Your task to perform on an android device: Go to wifi settings Image 0: 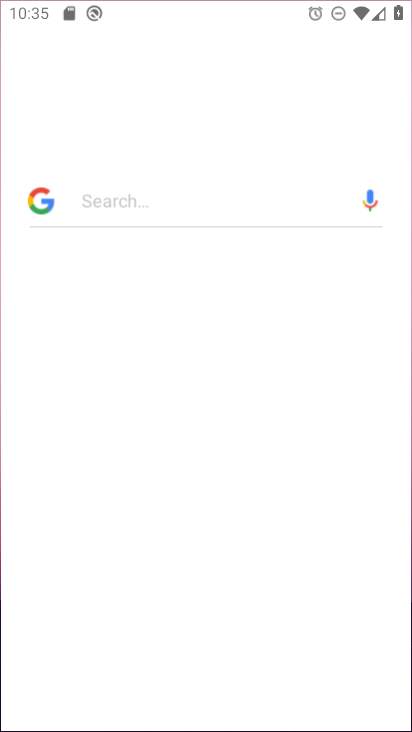
Step 0: drag from (360, 622) to (287, 109)
Your task to perform on an android device: Go to wifi settings Image 1: 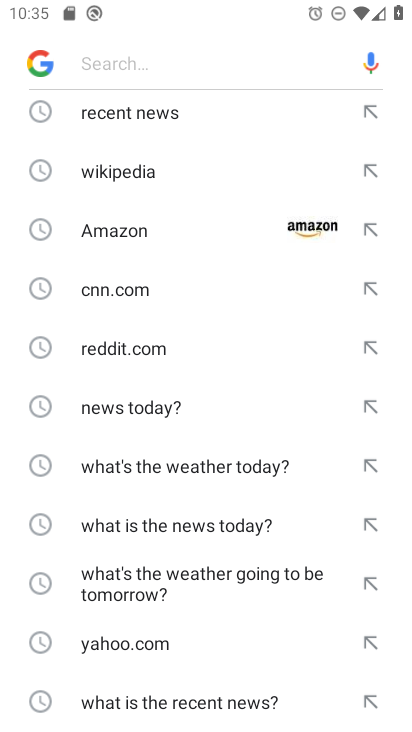
Step 1: press home button
Your task to perform on an android device: Go to wifi settings Image 2: 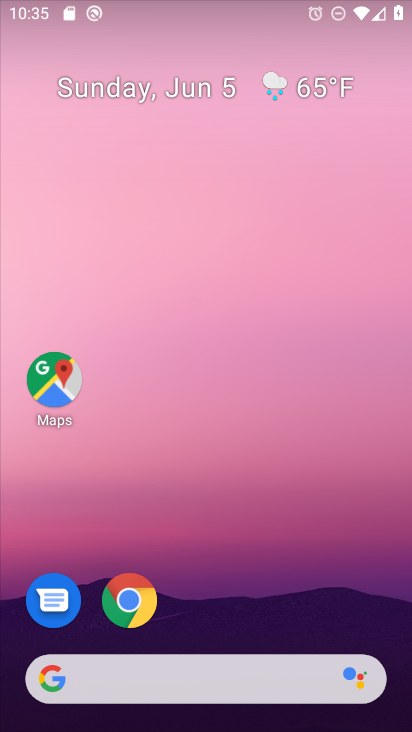
Step 2: drag from (370, 617) to (282, 53)
Your task to perform on an android device: Go to wifi settings Image 3: 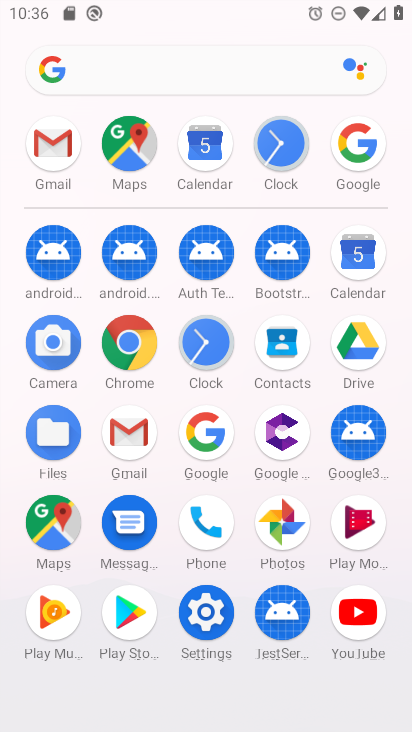
Step 3: click (190, 614)
Your task to perform on an android device: Go to wifi settings Image 4: 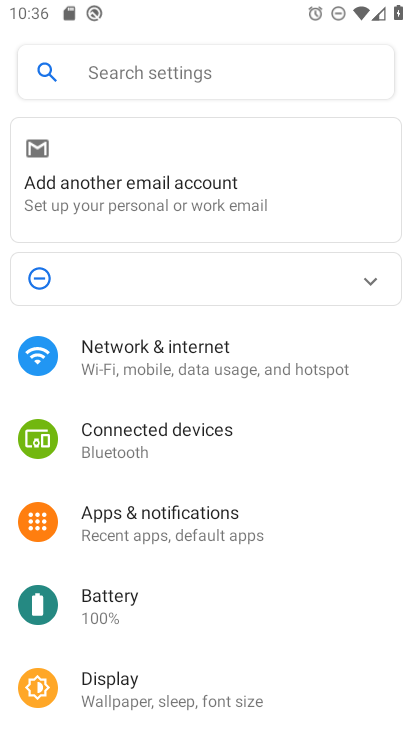
Step 4: click (181, 352)
Your task to perform on an android device: Go to wifi settings Image 5: 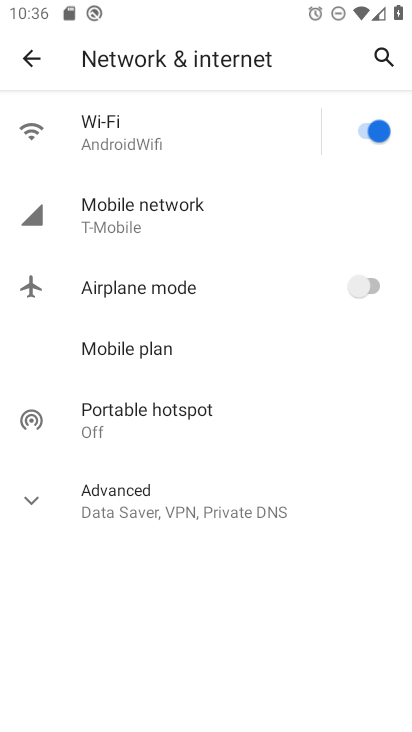
Step 5: click (119, 142)
Your task to perform on an android device: Go to wifi settings Image 6: 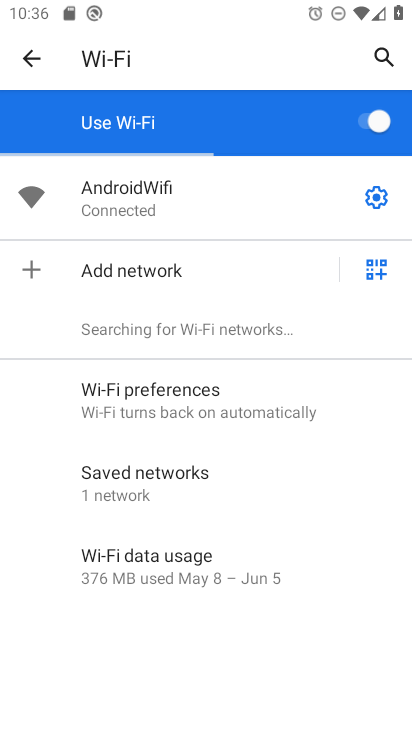
Step 6: task complete